Your task to perform on an android device: toggle translation in the chrome app Image 0: 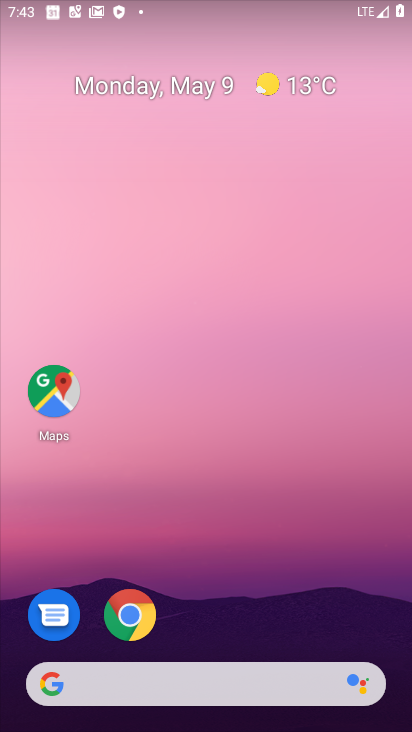
Step 0: click (127, 614)
Your task to perform on an android device: toggle translation in the chrome app Image 1: 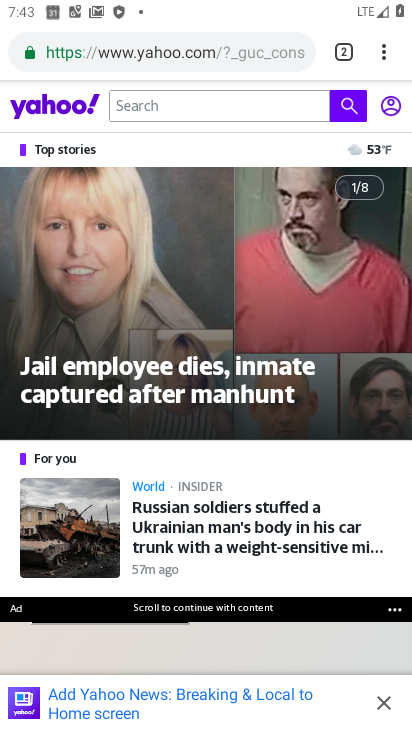
Step 1: click (380, 48)
Your task to perform on an android device: toggle translation in the chrome app Image 2: 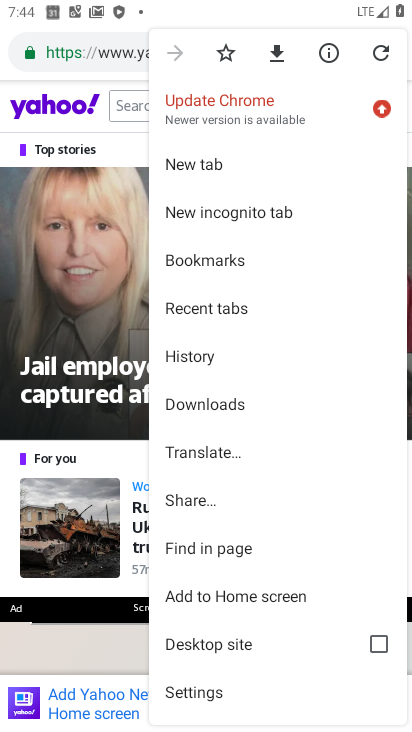
Step 2: click (206, 692)
Your task to perform on an android device: toggle translation in the chrome app Image 3: 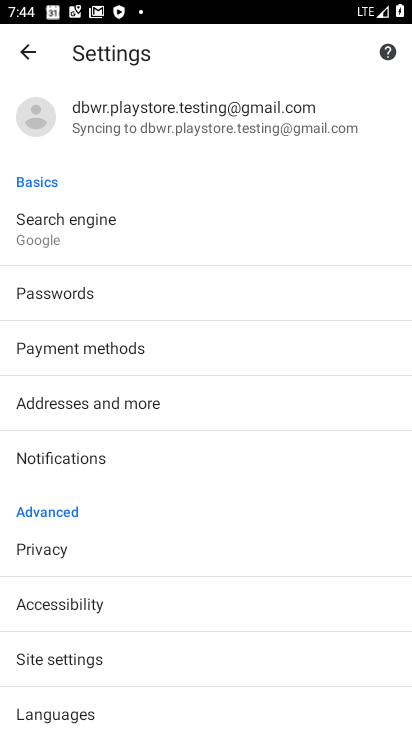
Step 3: click (81, 715)
Your task to perform on an android device: toggle translation in the chrome app Image 4: 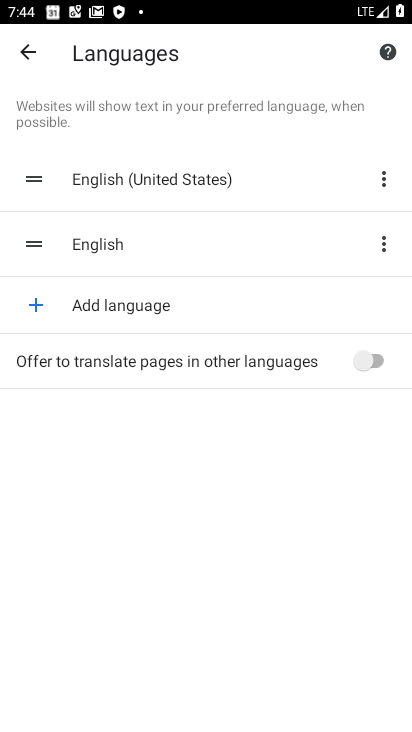
Step 4: click (376, 353)
Your task to perform on an android device: toggle translation in the chrome app Image 5: 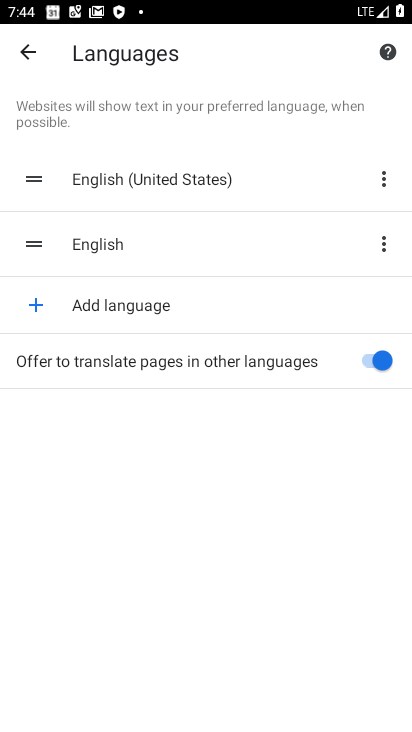
Step 5: click (376, 353)
Your task to perform on an android device: toggle translation in the chrome app Image 6: 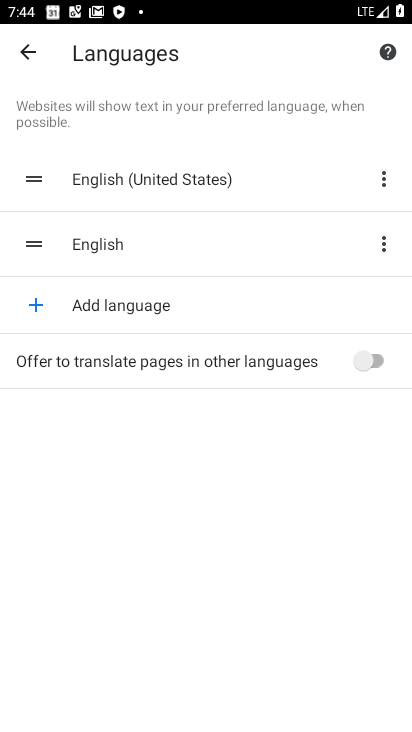
Step 6: click (376, 353)
Your task to perform on an android device: toggle translation in the chrome app Image 7: 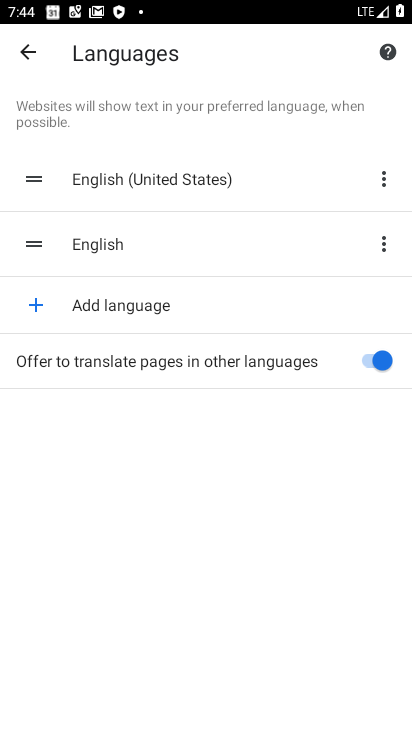
Step 7: task complete